Your task to perform on an android device: visit the assistant section in the google photos Image 0: 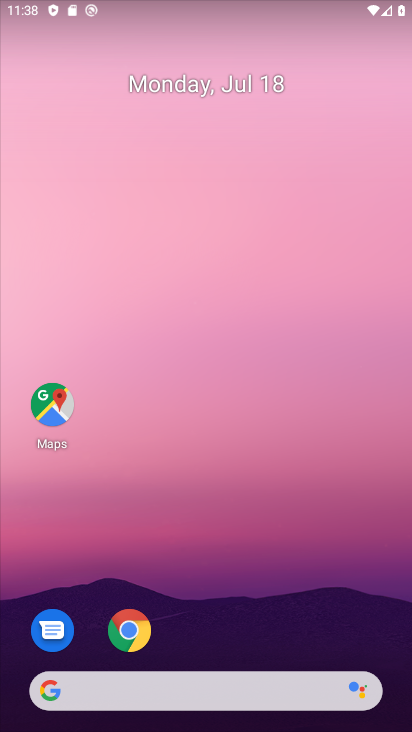
Step 0: drag from (217, 607) to (296, 0)
Your task to perform on an android device: visit the assistant section in the google photos Image 1: 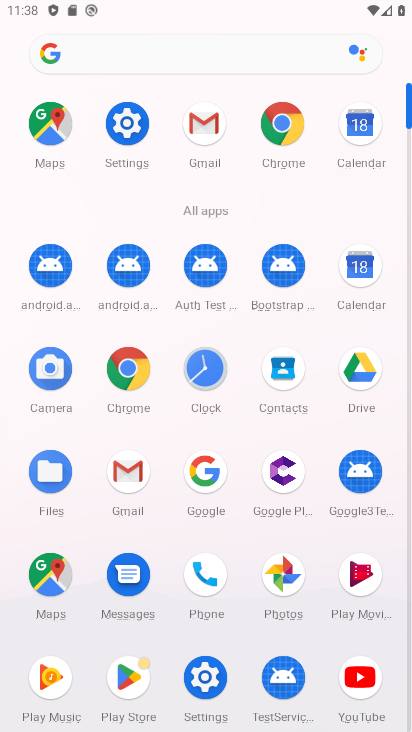
Step 1: click (295, 572)
Your task to perform on an android device: visit the assistant section in the google photos Image 2: 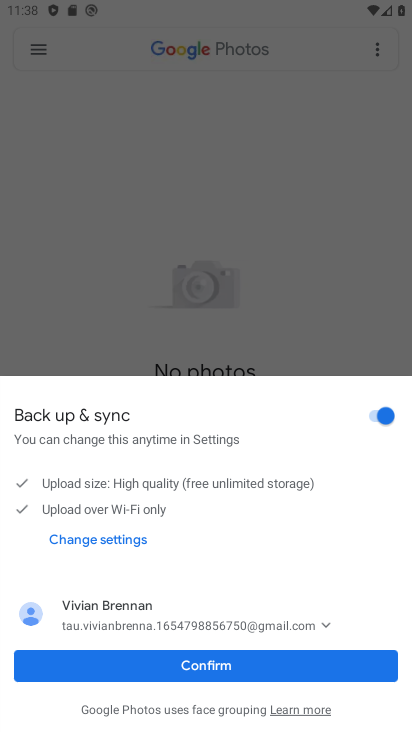
Step 2: click (217, 666)
Your task to perform on an android device: visit the assistant section in the google photos Image 3: 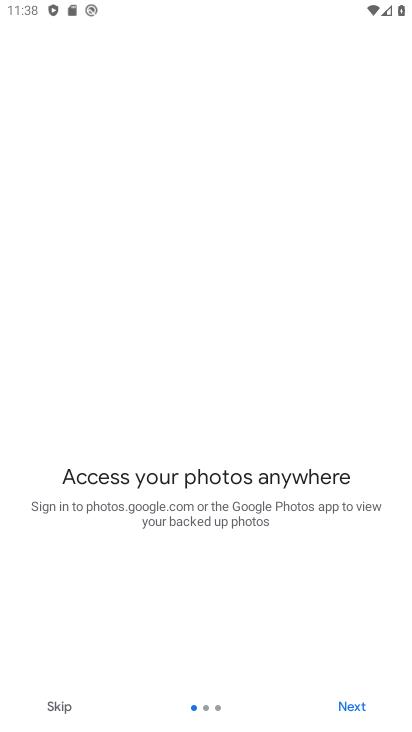
Step 3: click (51, 702)
Your task to perform on an android device: visit the assistant section in the google photos Image 4: 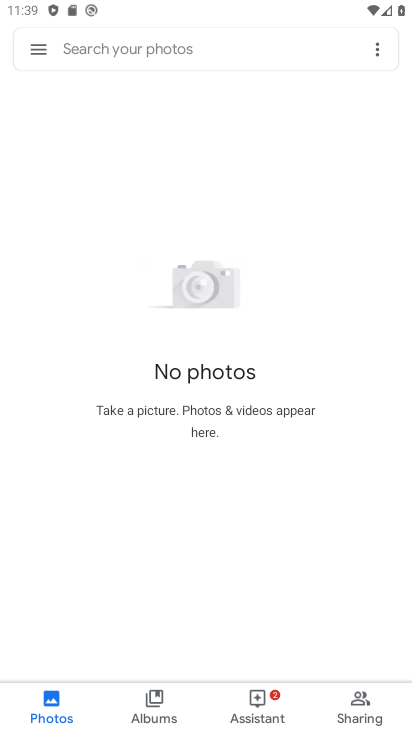
Step 4: click (258, 698)
Your task to perform on an android device: visit the assistant section in the google photos Image 5: 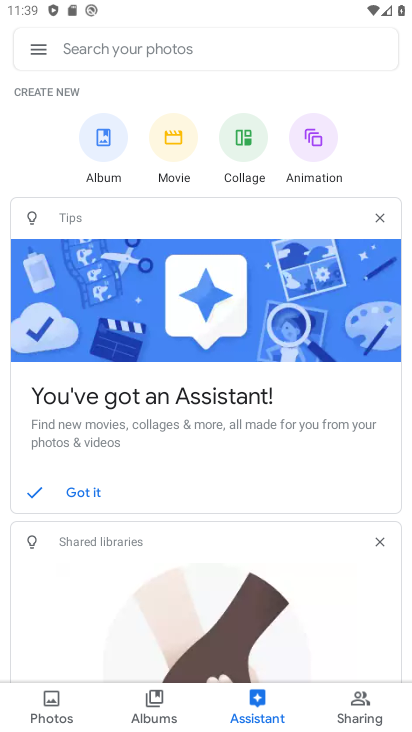
Step 5: task complete